Your task to perform on an android device: toggle pop-ups in chrome Image 0: 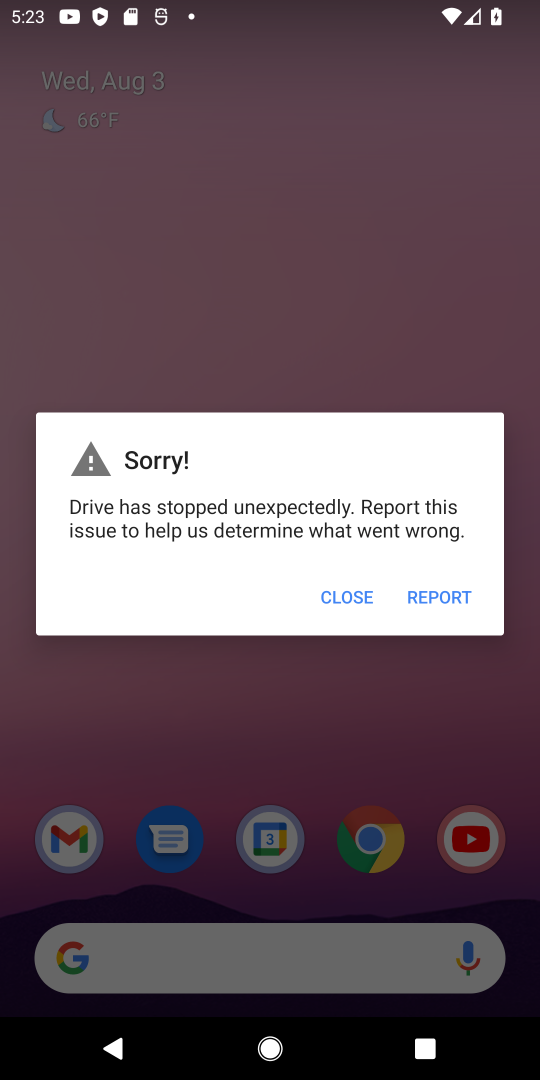
Step 0: click (358, 596)
Your task to perform on an android device: toggle pop-ups in chrome Image 1: 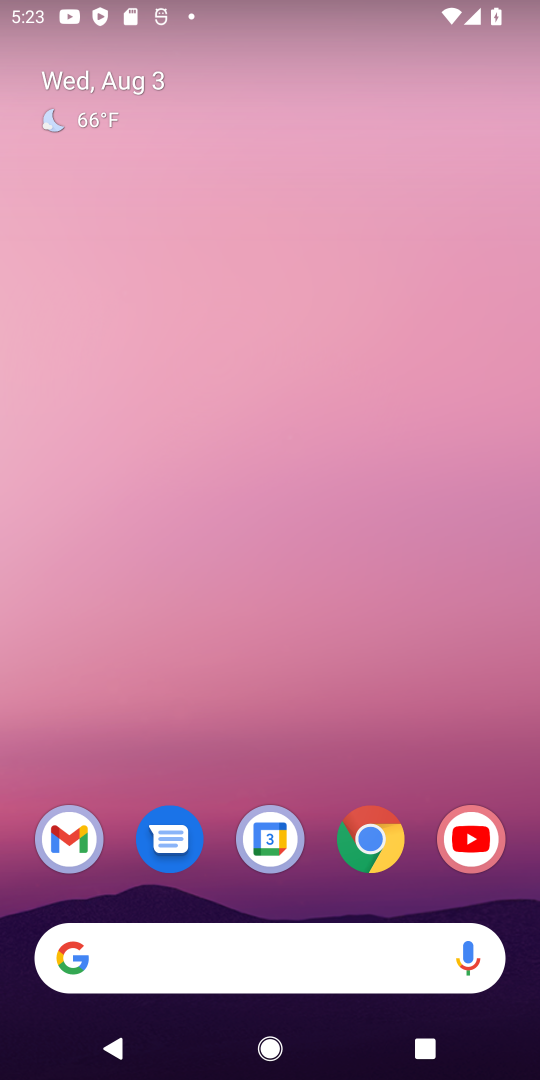
Step 1: click (363, 826)
Your task to perform on an android device: toggle pop-ups in chrome Image 2: 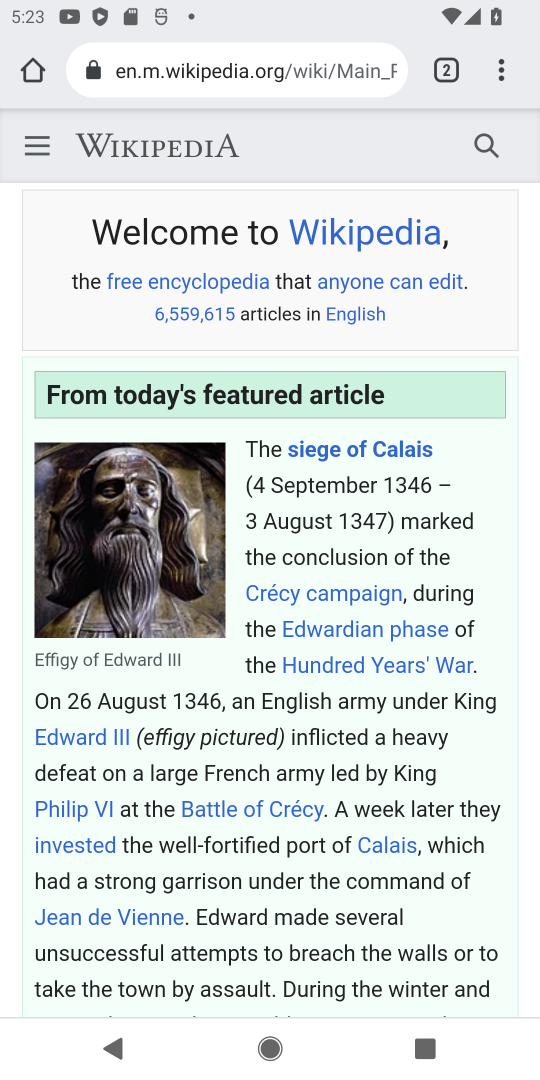
Step 2: drag from (509, 65) to (285, 896)
Your task to perform on an android device: toggle pop-ups in chrome Image 3: 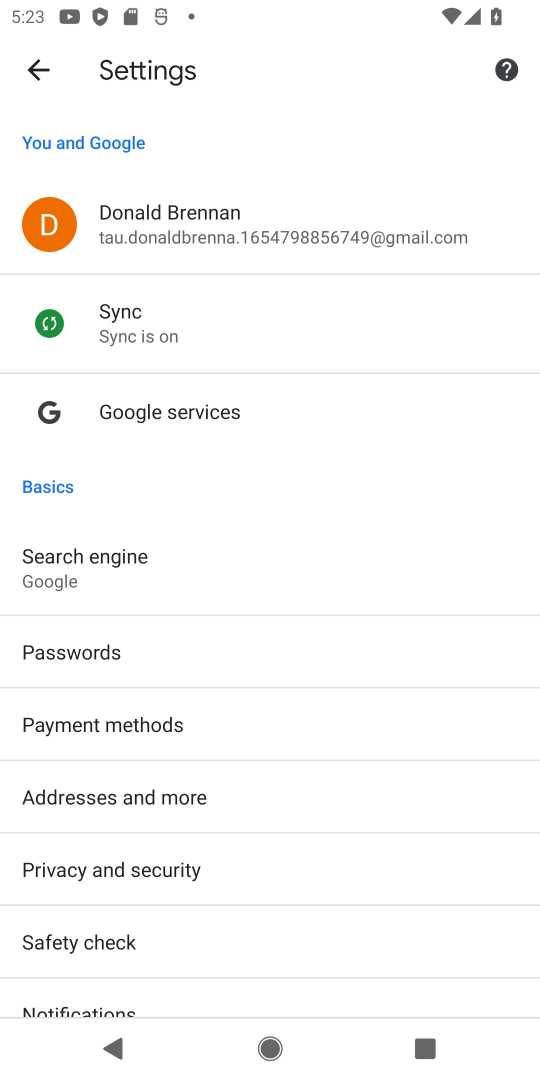
Step 3: drag from (140, 945) to (298, 154)
Your task to perform on an android device: toggle pop-ups in chrome Image 4: 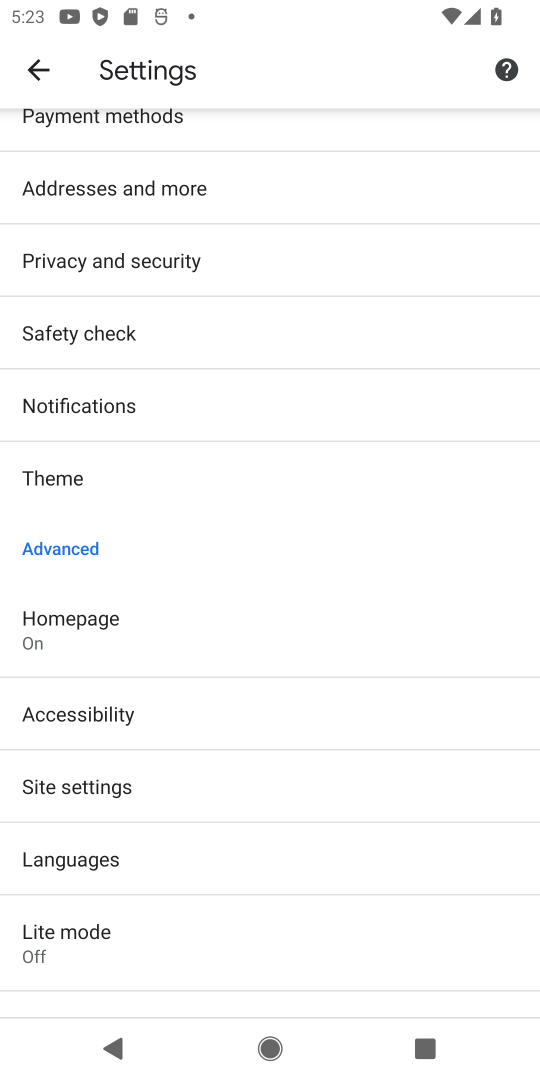
Step 4: click (98, 786)
Your task to perform on an android device: toggle pop-ups in chrome Image 5: 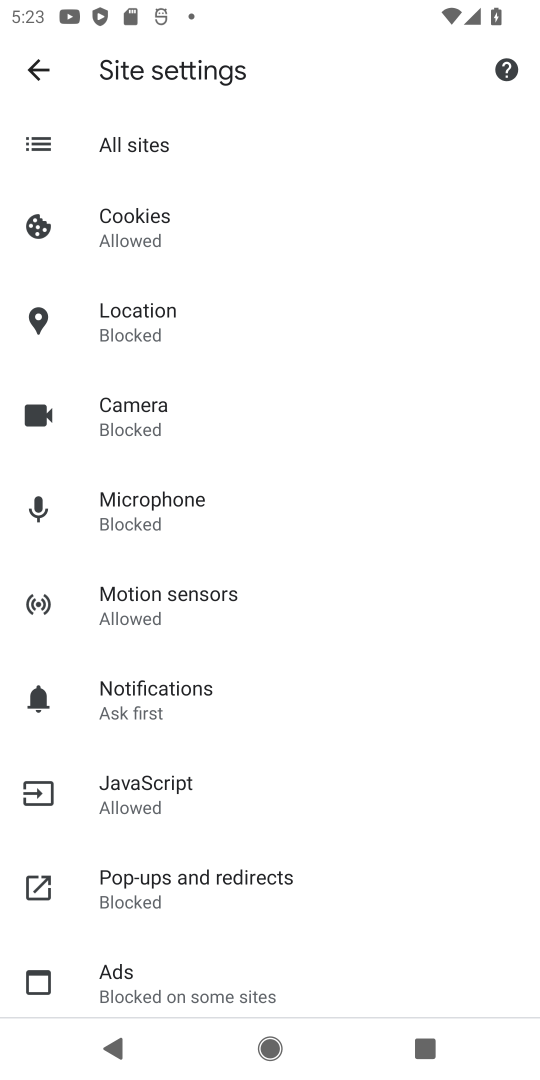
Step 5: click (186, 890)
Your task to perform on an android device: toggle pop-ups in chrome Image 6: 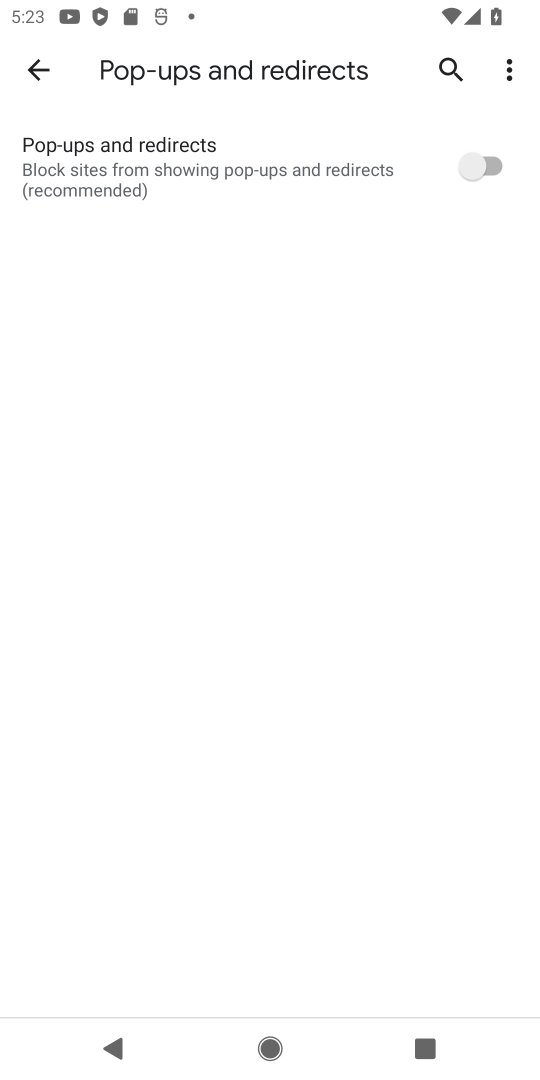
Step 6: click (472, 164)
Your task to perform on an android device: toggle pop-ups in chrome Image 7: 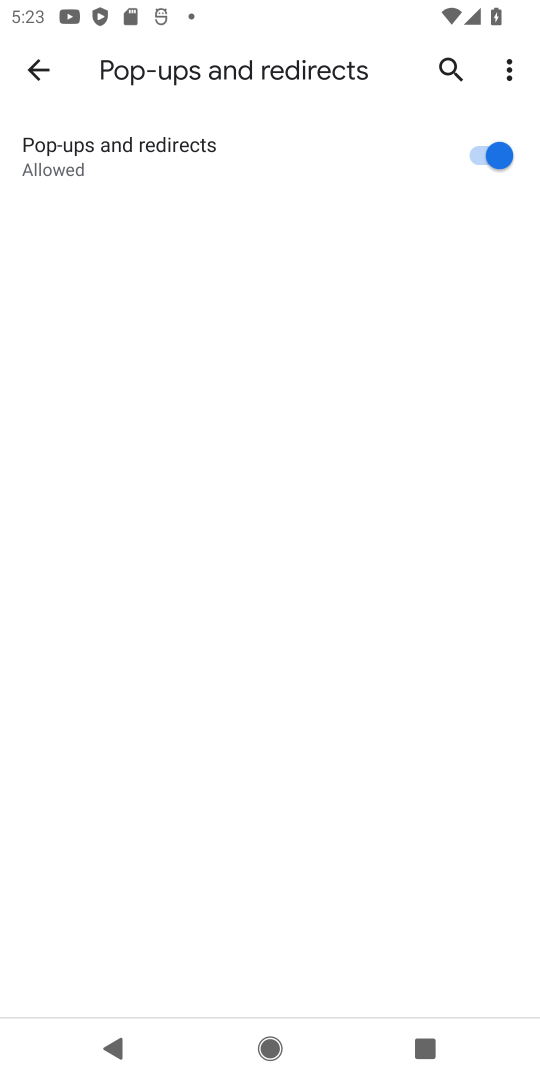
Step 7: task complete